Your task to perform on an android device: turn off javascript in the chrome app Image 0: 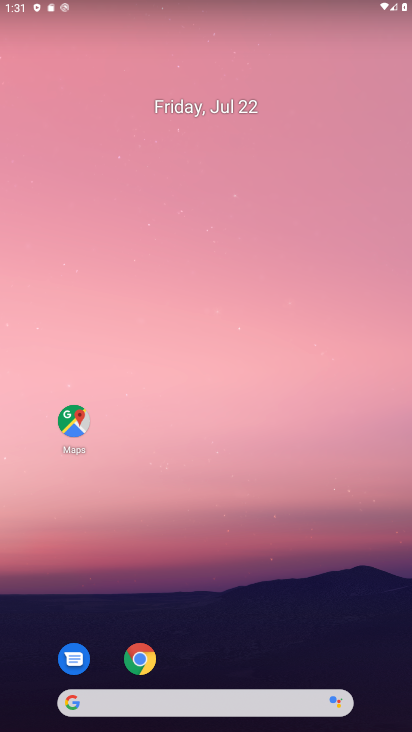
Step 0: click (144, 656)
Your task to perform on an android device: turn off javascript in the chrome app Image 1: 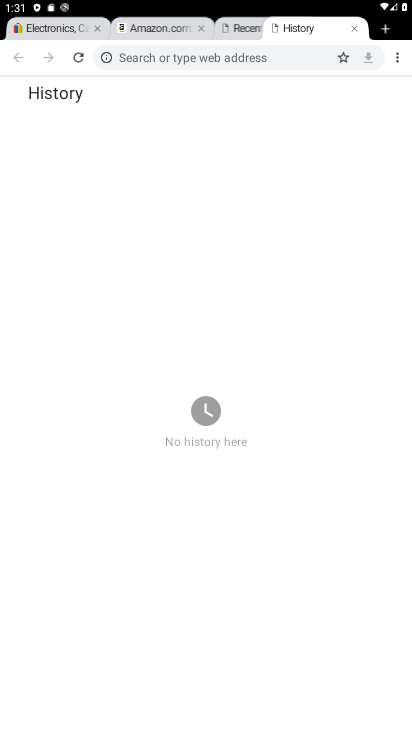
Step 1: click (398, 58)
Your task to perform on an android device: turn off javascript in the chrome app Image 2: 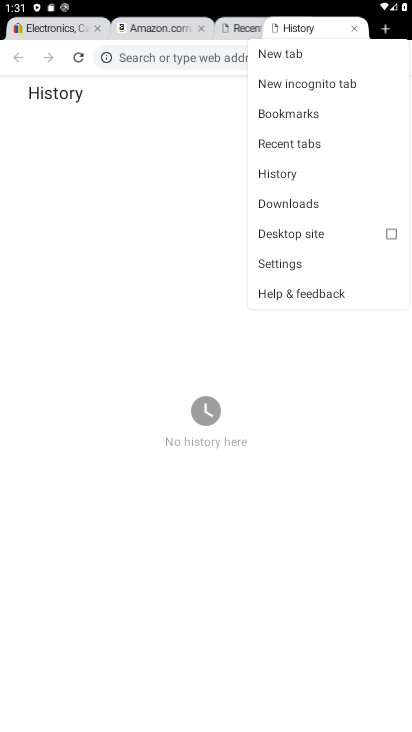
Step 2: click (283, 270)
Your task to perform on an android device: turn off javascript in the chrome app Image 3: 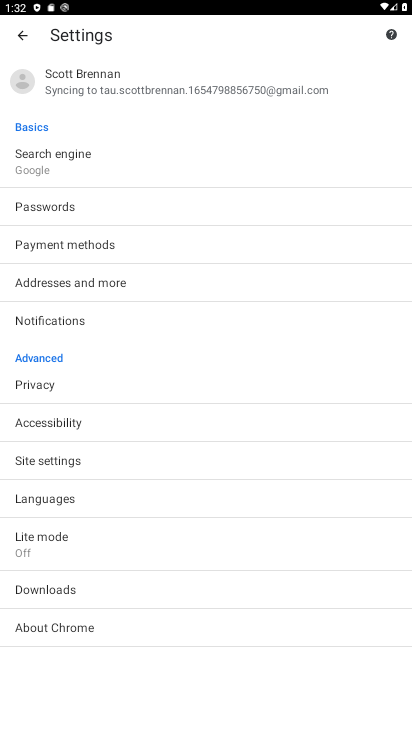
Step 3: task complete